Your task to perform on an android device: Go to internet settings Image 0: 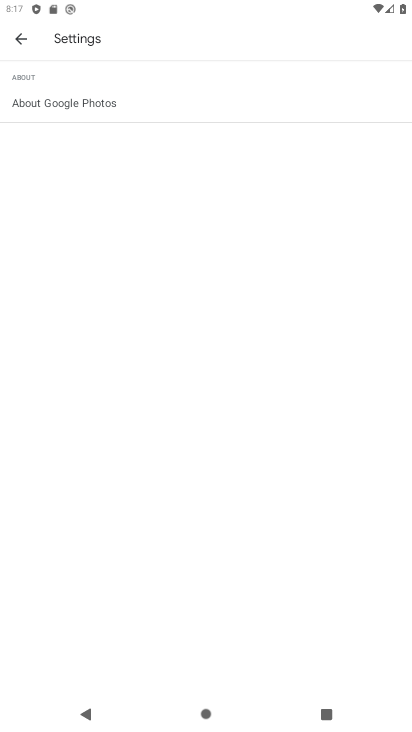
Step 0: press back button
Your task to perform on an android device: Go to internet settings Image 1: 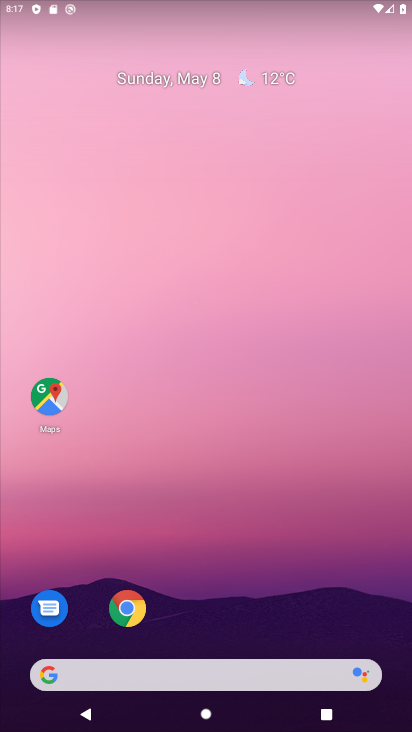
Step 1: drag from (270, 615) to (256, 22)
Your task to perform on an android device: Go to internet settings Image 2: 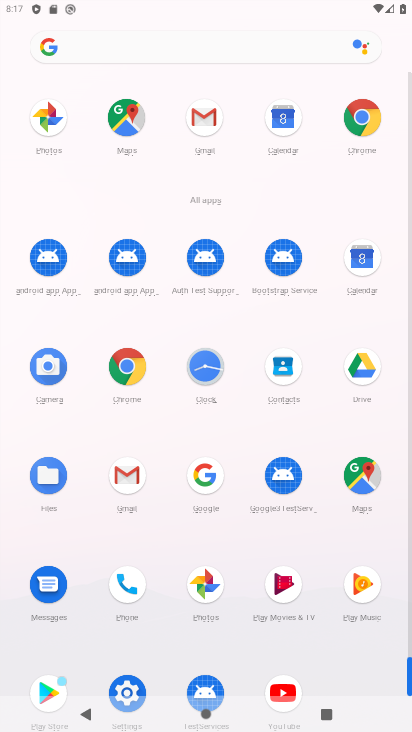
Step 2: click (124, 685)
Your task to perform on an android device: Go to internet settings Image 3: 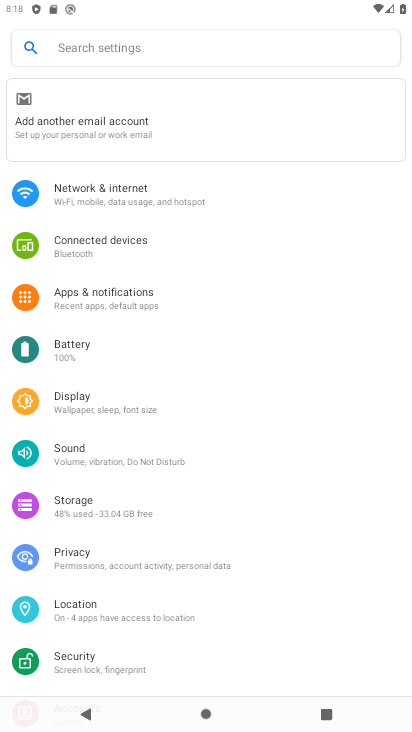
Step 3: click (140, 205)
Your task to perform on an android device: Go to internet settings Image 4: 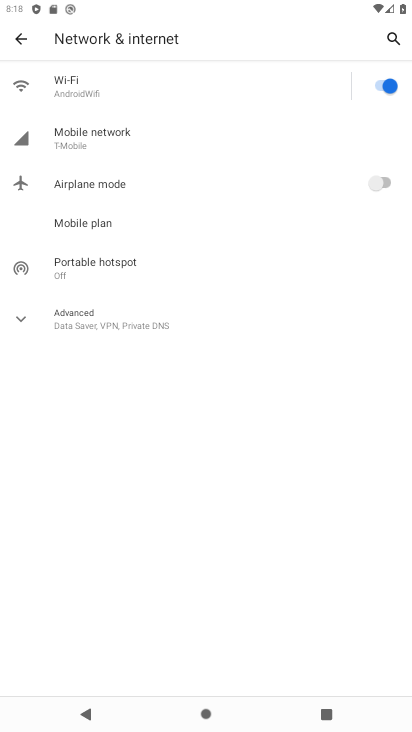
Step 4: click (95, 92)
Your task to perform on an android device: Go to internet settings Image 5: 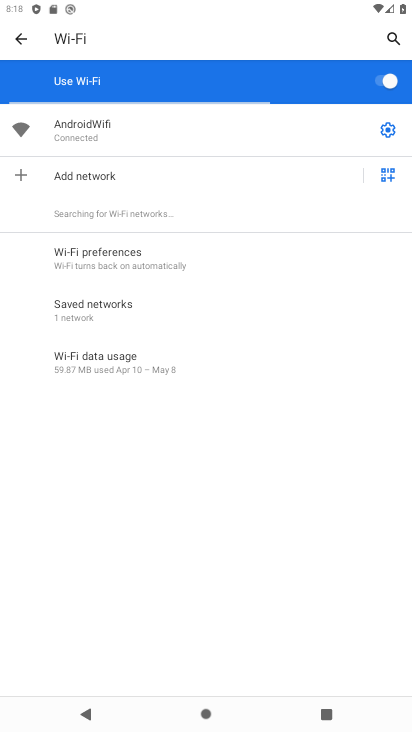
Step 5: task complete